Your task to perform on an android device: turn on notifications settings in the gmail app Image 0: 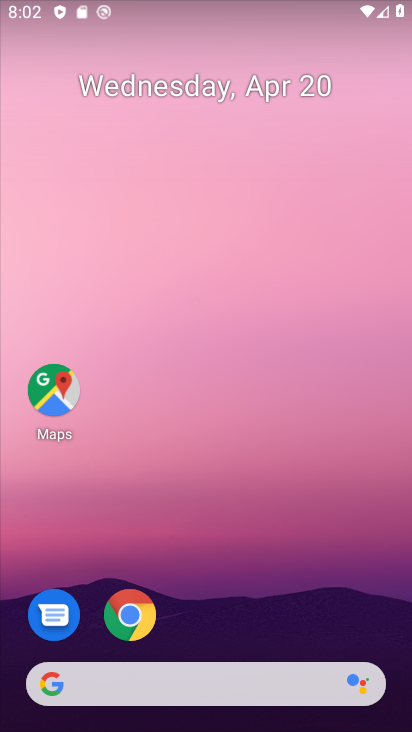
Step 0: drag from (243, 623) to (273, 67)
Your task to perform on an android device: turn on notifications settings in the gmail app Image 1: 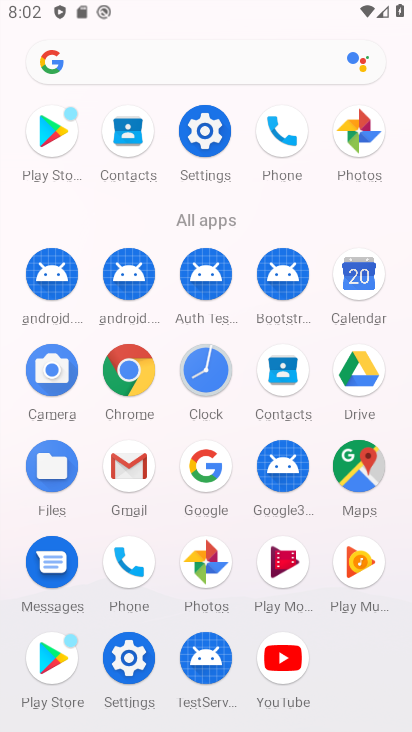
Step 1: click (128, 470)
Your task to perform on an android device: turn on notifications settings in the gmail app Image 2: 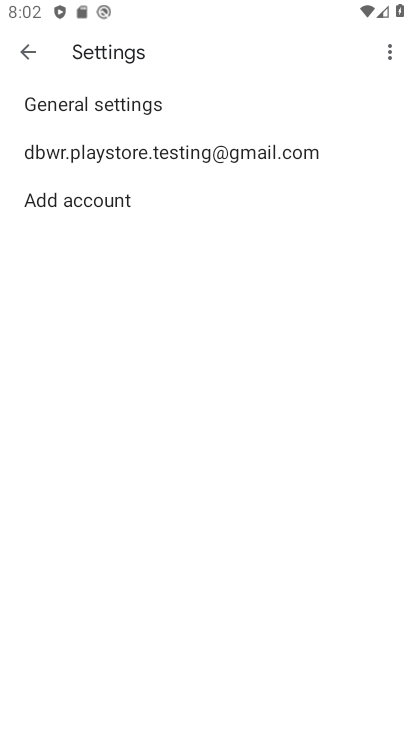
Step 2: click (231, 151)
Your task to perform on an android device: turn on notifications settings in the gmail app Image 3: 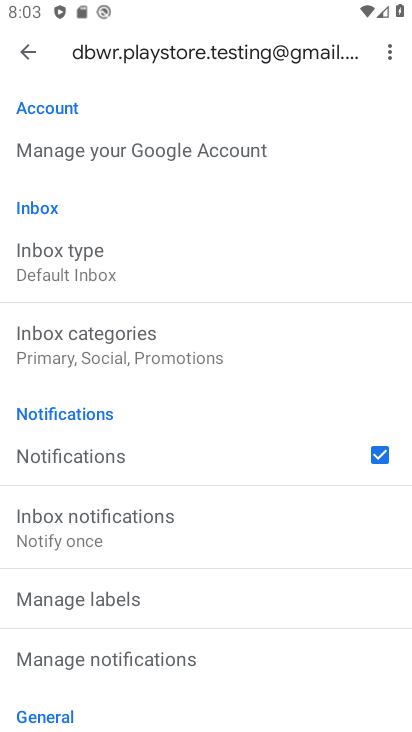
Step 3: click (103, 661)
Your task to perform on an android device: turn on notifications settings in the gmail app Image 4: 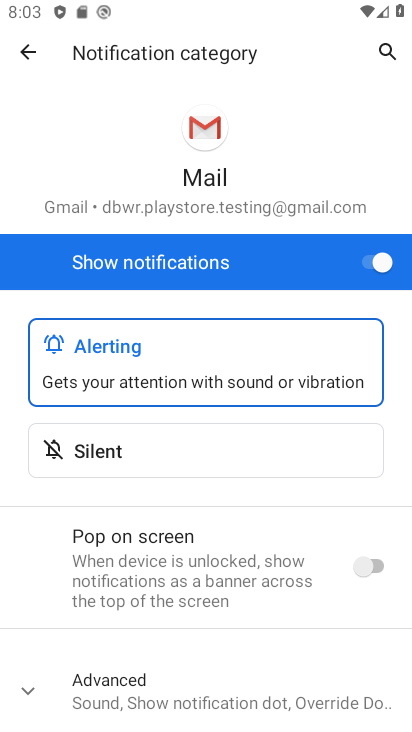
Step 4: task complete